Your task to perform on an android device: find photos in the google photos app Image 0: 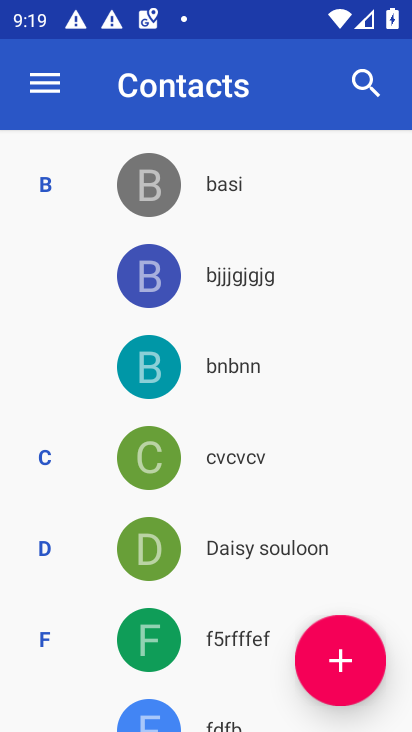
Step 0: press home button
Your task to perform on an android device: find photos in the google photos app Image 1: 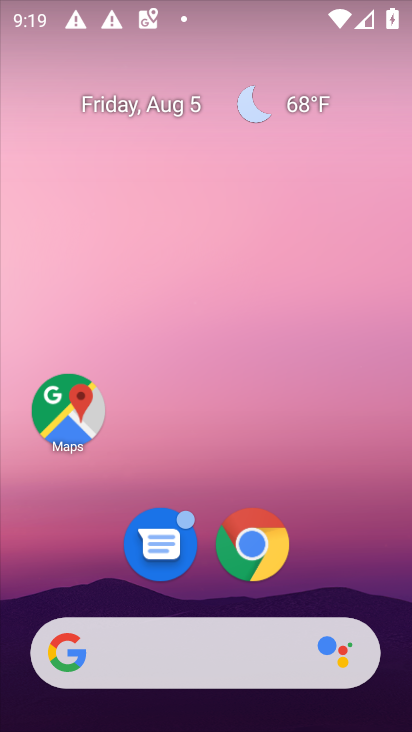
Step 1: drag from (347, 412) to (337, 4)
Your task to perform on an android device: find photos in the google photos app Image 2: 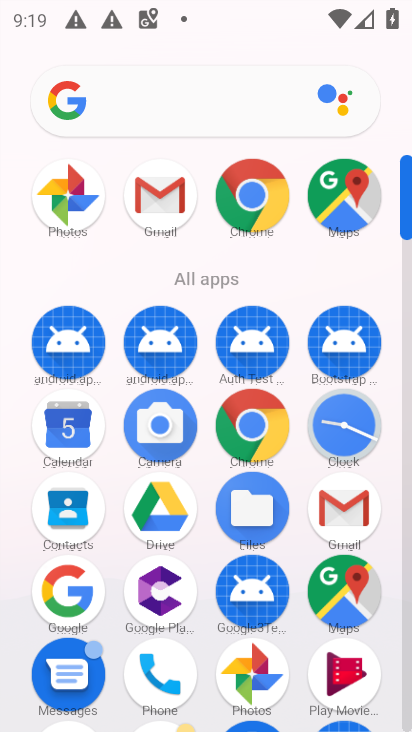
Step 2: click (248, 682)
Your task to perform on an android device: find photos in the google photos app Image 3: 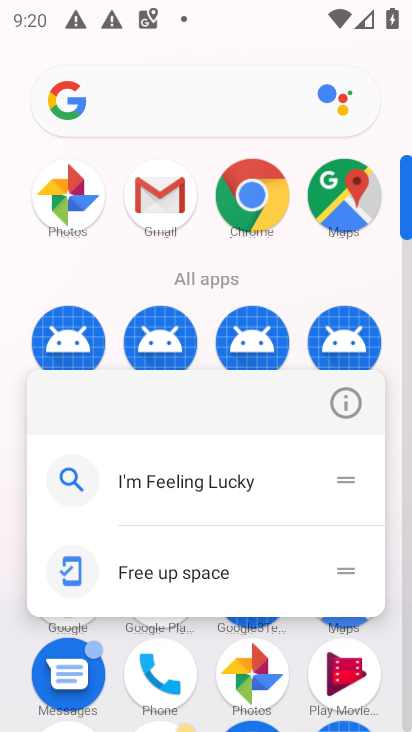
Step 3: click (252, 668)
Your task to perform on an android device: find photos in the google photos app Image 4: 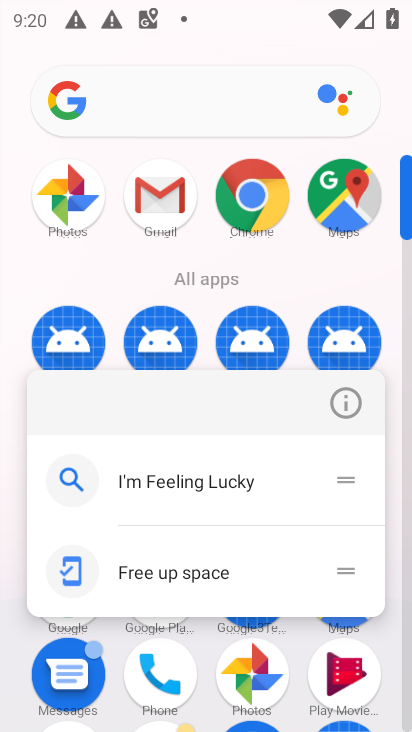
Step 4: click (253, 668)
Your task to perform on an android device: find photos in the google photos app Image 5: 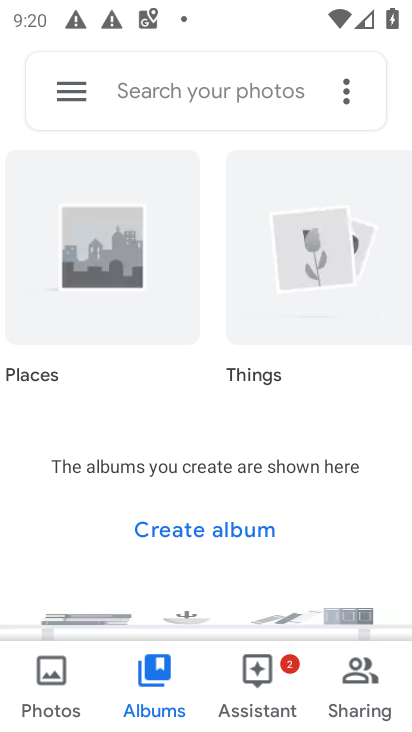
Step 5: click (45, 690)
Your task to perform on an android device: find photos in the google photos app Image 6: 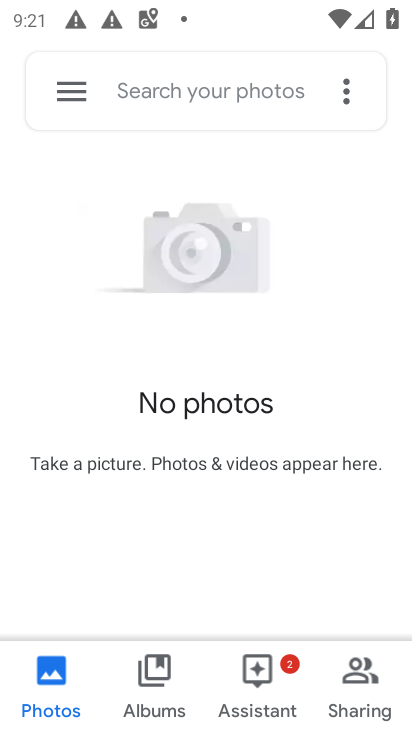
Step 6: task complete